Your task to perform on an android device: check storage Image 0: 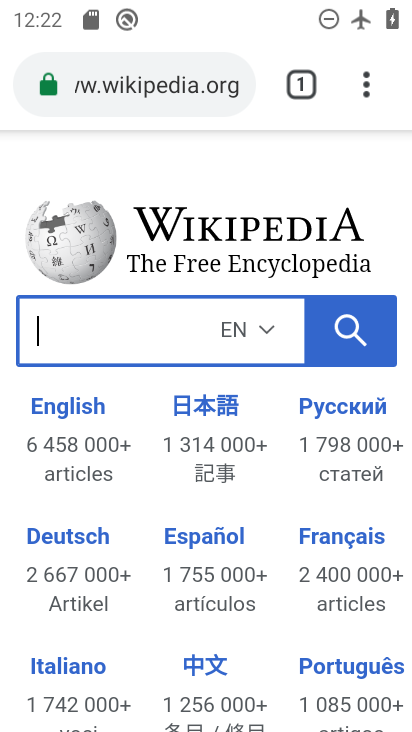
Step 0: press home button
Your task to perform on an android device: check storage Image 1: 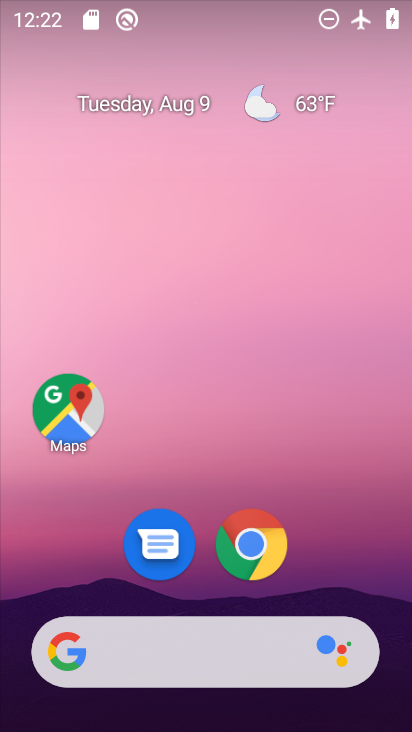
Step 1: drag from (203, 668) to (212, 106)
Your task to perform on an android device: check storage Image 2: 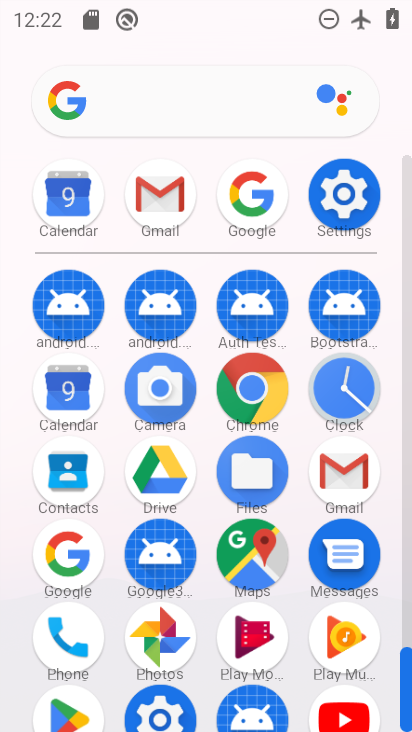
Step 2: click (345, 194)
Your task to perform on an android device: check storage Image 3: 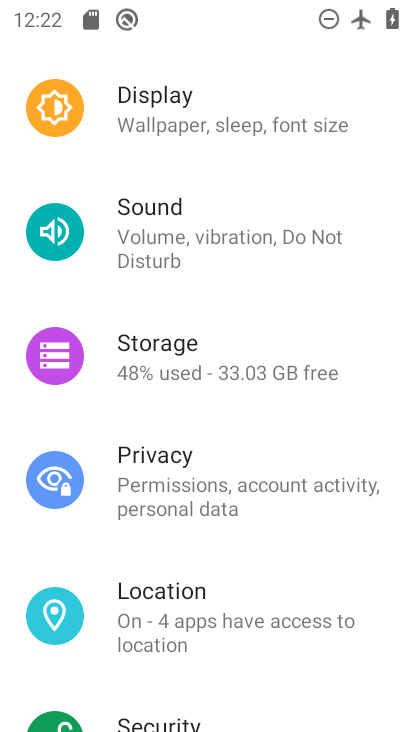
Step 3: click (179, 356)
Your task to perform on an android device: check storage Image 4: 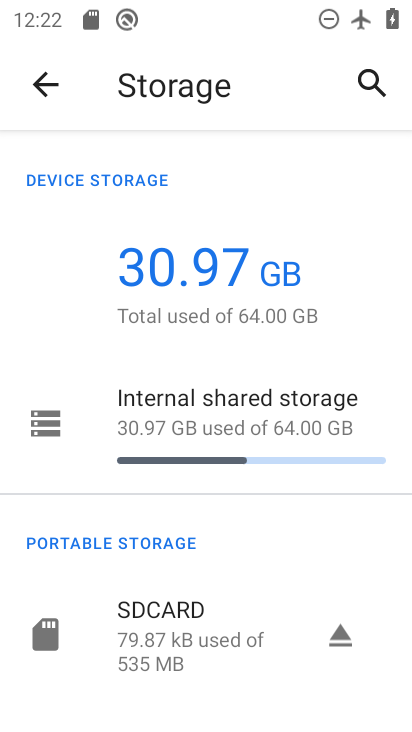
Step 4: task complete